Your task to perform on an android device: delete a single message in the gmail app Image 0: 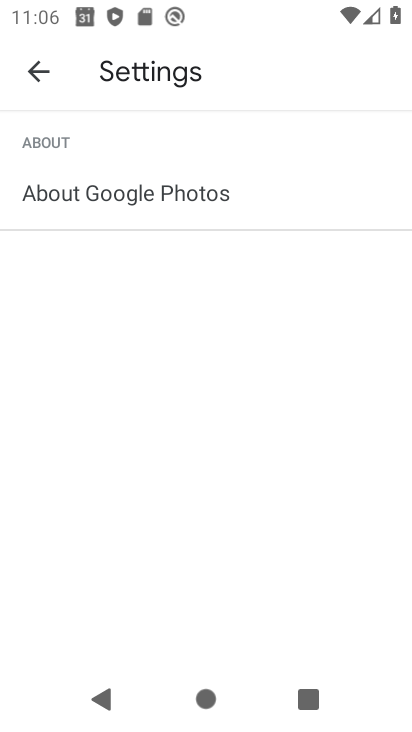
Step 0: press home button
Your task to perform on an android device: delete a single message in the gmail app Image 1: 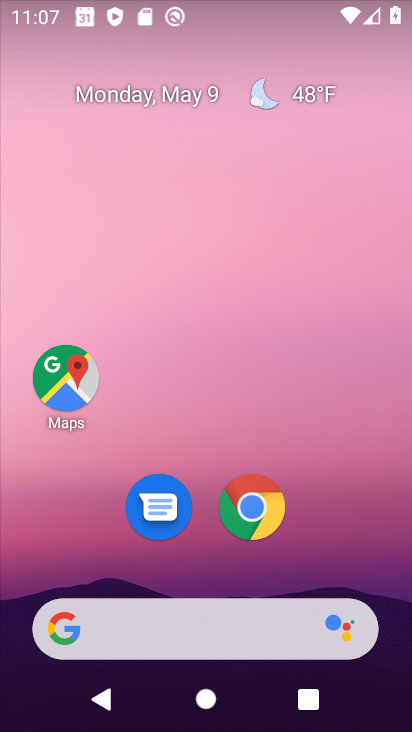
Step 1: drag from (220, 548) to (228, 108)
Your task to perform on an android device: delete a single message in the gmail app Image 2: 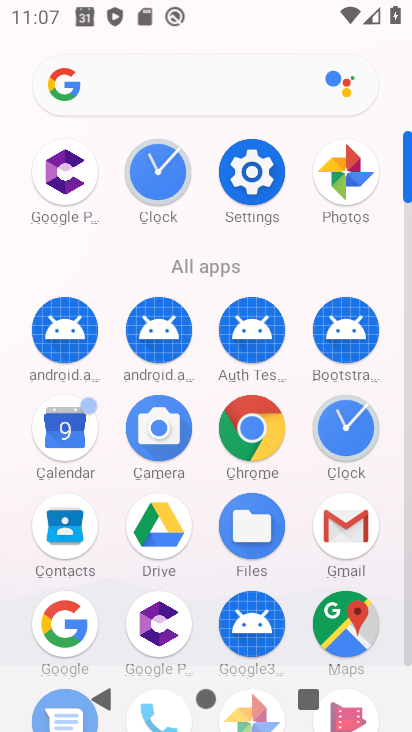
Step 2: click (341, 533)
Your task to perform on an android device: delete a single message in the gmail app Image 3: 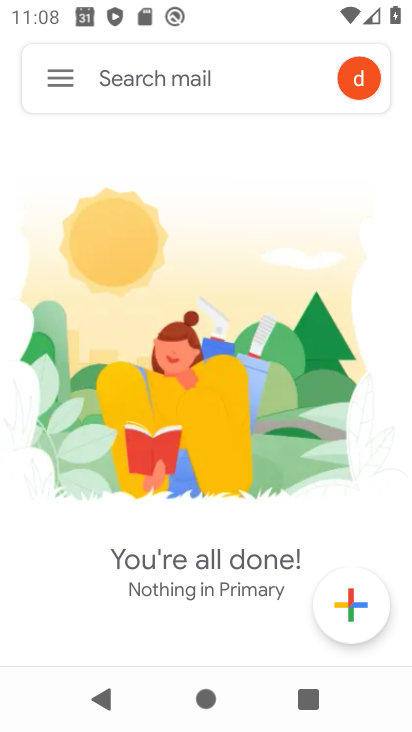
Step 3: click (62, 80)
Your task to perform on an android device: delete a single message in the gmail app Image 4: 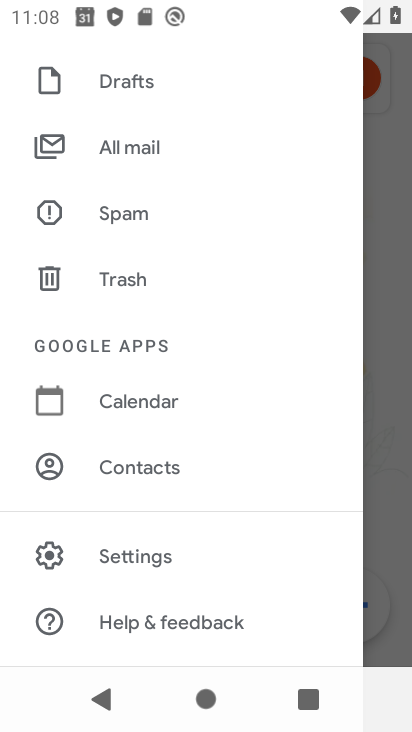
Step 4: click (167, 146)
Your task to perform on an android device: delete a single message in the gmail app Image 5: 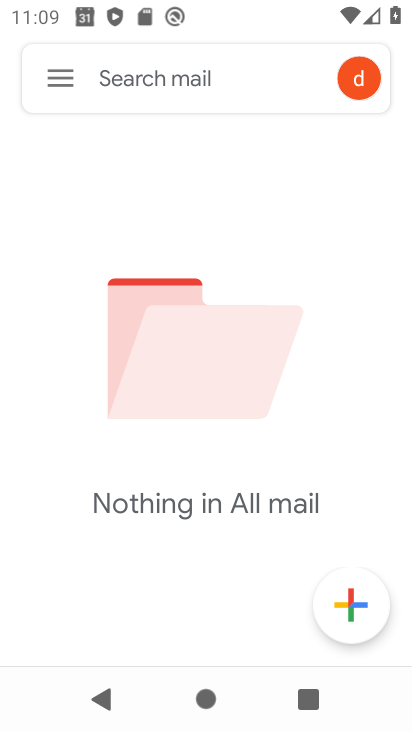
Step 5: task complete